Your task to perform on an android device: move an email to a new category in the gmail app Image 0: 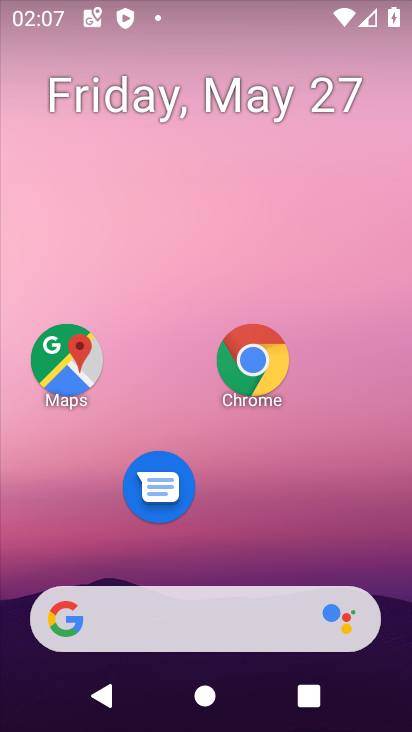
Step 0: drag from (245, 314) to (256, 80)
Your task to perform on an android device: move an email to a new category in the gmail app Image 1: 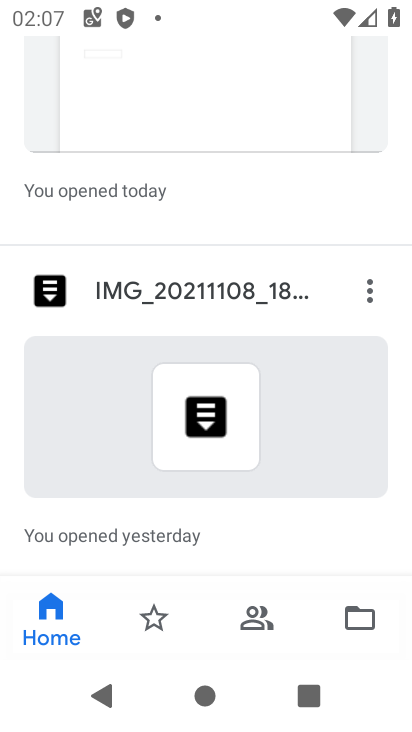
Step 1: press home button
Your task to perform on an android device: move an email to a new category in the gmail app Image 2: 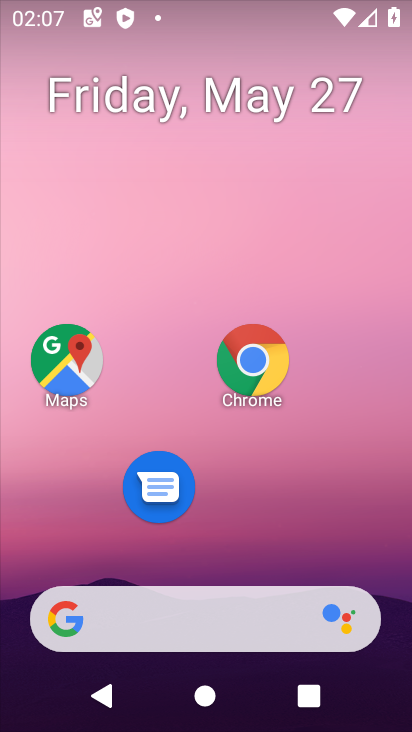
Step 2: drag from (244, 517) to (273, 73)
Your task to perform on an android device: move an email to a new category in the gmail app Image 3: 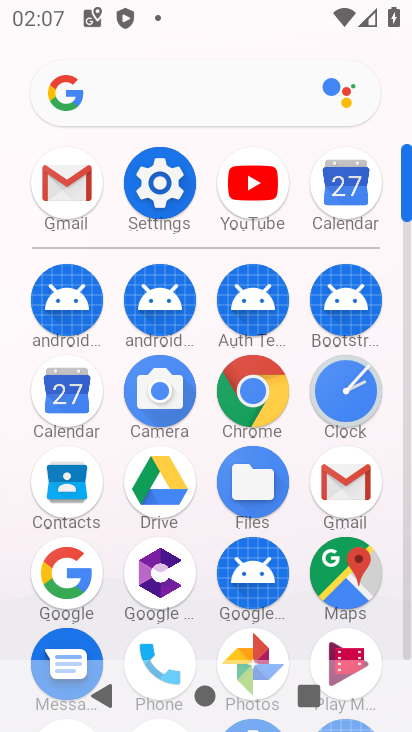
Step 3: click (71, 176)
Your task to perform on an android device: move an email to a new category in the gmail app Image 4: 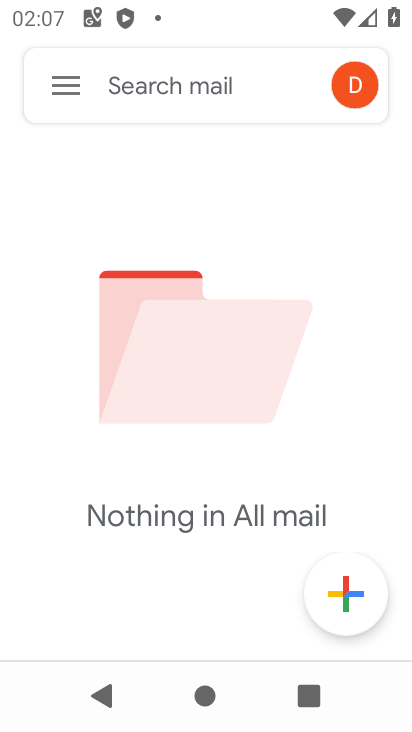
Step 4: click (67, 82)
Your task to perform on an android device: move an email to a new category in the gmail app Image 5: 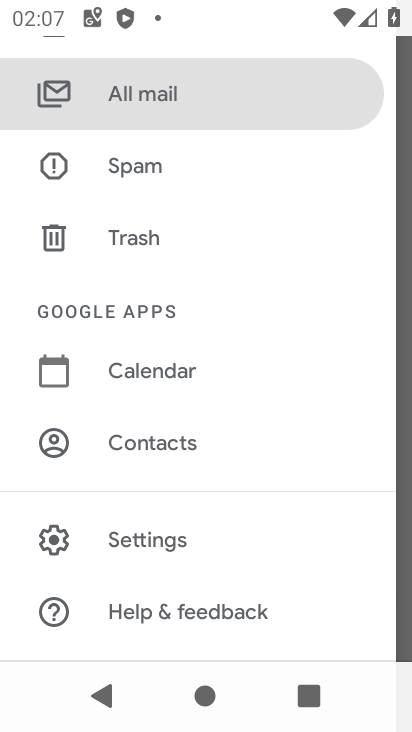
Step 5: task complete